Your task to perform on an android device: star an email in the gmail app Image 0: 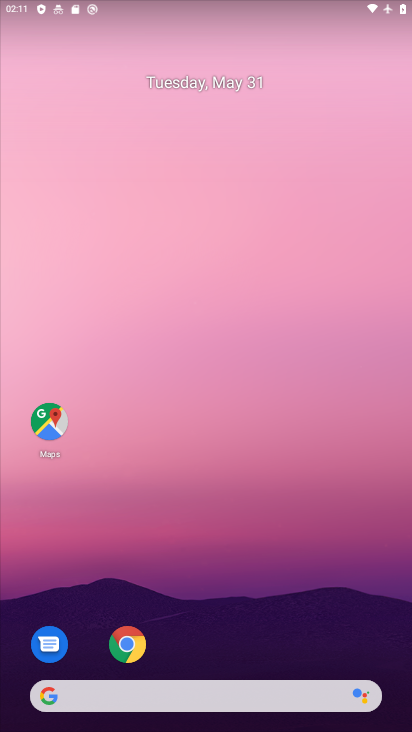
Step 0: drag from (298, 633) to (209, 169)
Your task to perform on an android device: star an email in the gmail app Image 1: 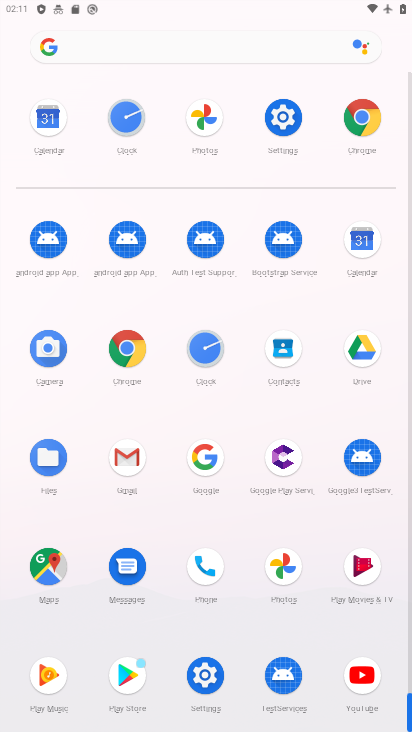
Step 1: click (132, 457)
Your task to perform on an android device: star an email in the gmail app Image 2: 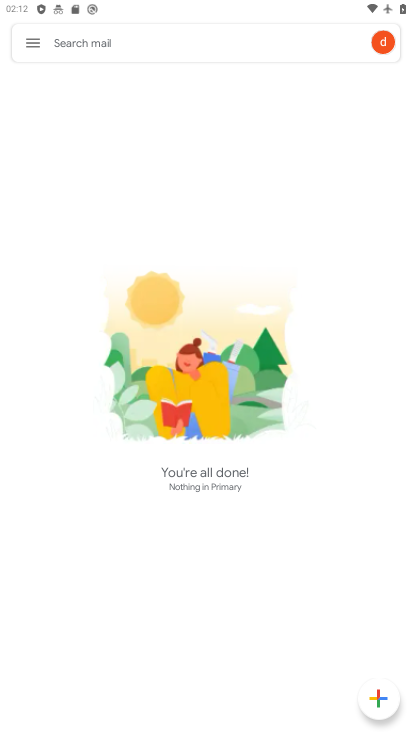
Step 2: click (36, 34)
Your task to perform on an android device: star an email in the gmail app Image 3: 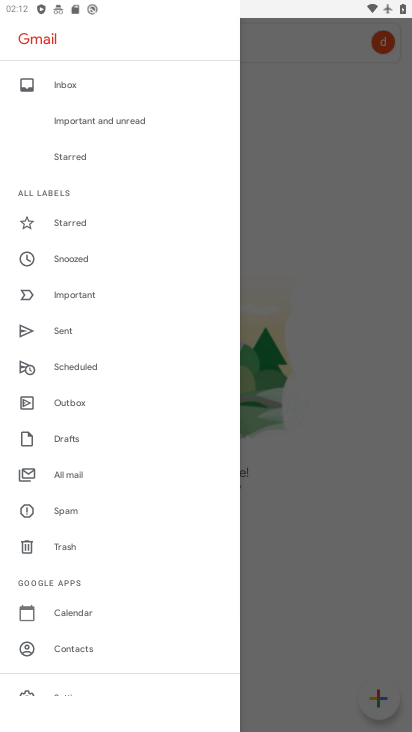
Step 3: click (68, 474)
Your task to perform on an android device: star an email in the gmail app Image 4: 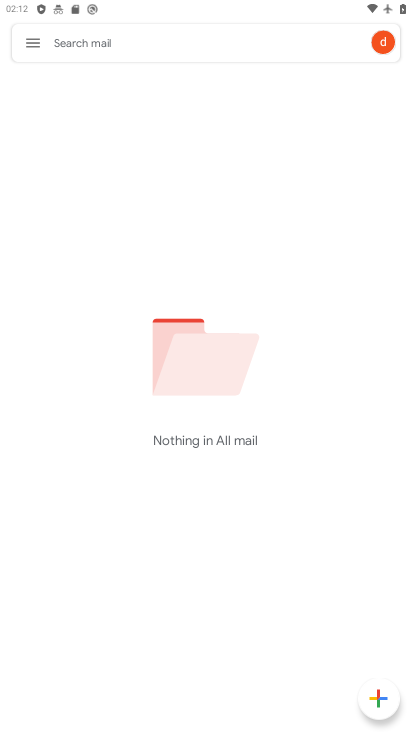
Step 4: task complete